Your task to perform on an android device: Is it going to rain tomorrow? Image 0: 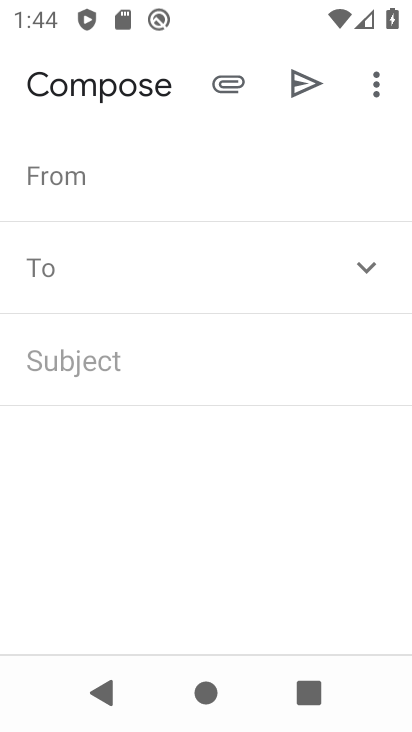
Step 0: click (269, 473)
Your task to perform on an android device: Is it going to rain tomorrow? Image 1: 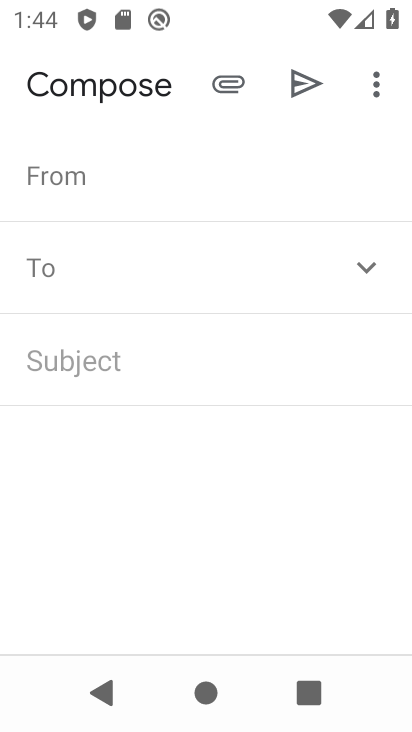
Step 1: press home button
Your task to perform on an android device: Is it going to rain tomorrow? Image 2: 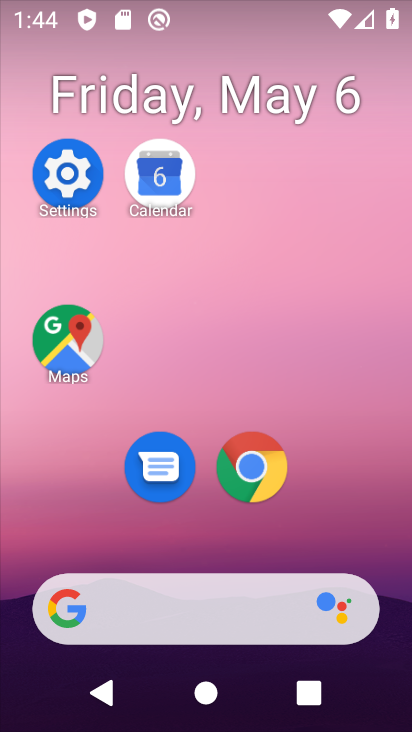
Step 2: drag from (234, 533) to (256, 111)
Your task to perform on an android device: Is it going to rain tomorrow? Image 3: 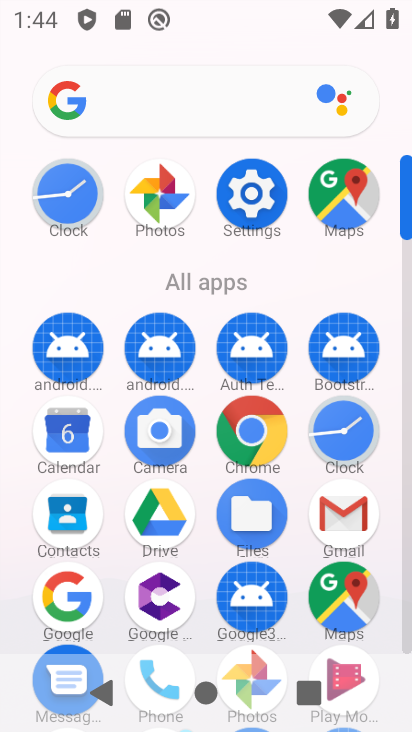
Step 3: drag from (85, 609) to (160, 295)
Your task to perform on an android device: Is it going to rain tomorrow? Image 4: 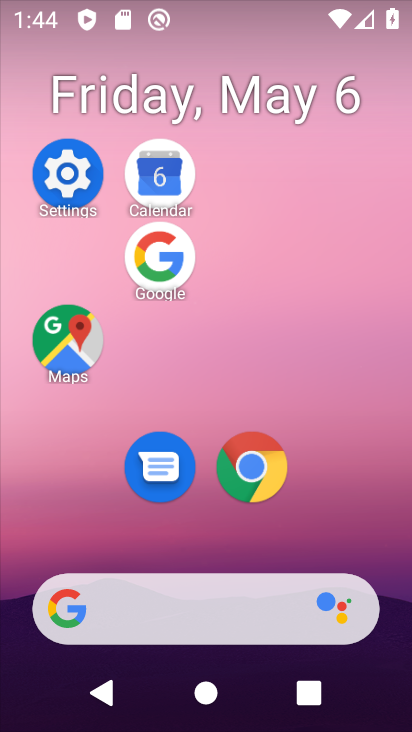
Step 4: click (177, 260)
Your task to perform on an android device: Is it going to rain tomorrow? Image 5: 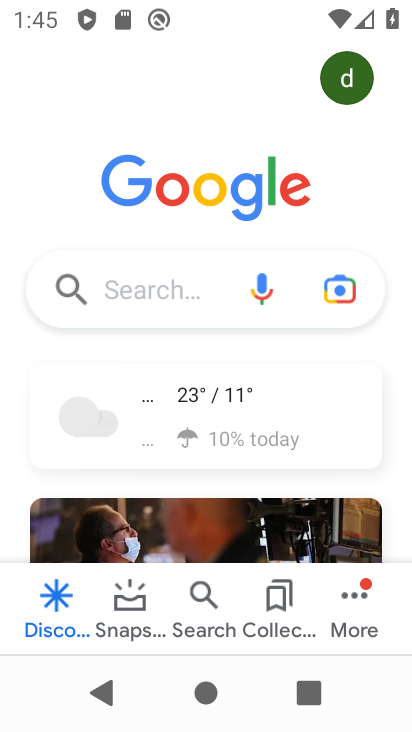
Step 5: click (218, 437)
Your task to perform on an android device: Is it going to rain tomorrow? Image 6: 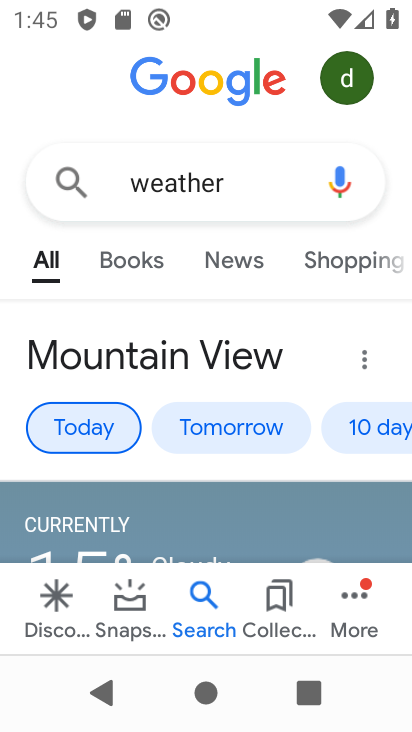
Step 6: click (233, 434)
Your task to perform on an android device: Is it going to rain tomorrow? Image 7: 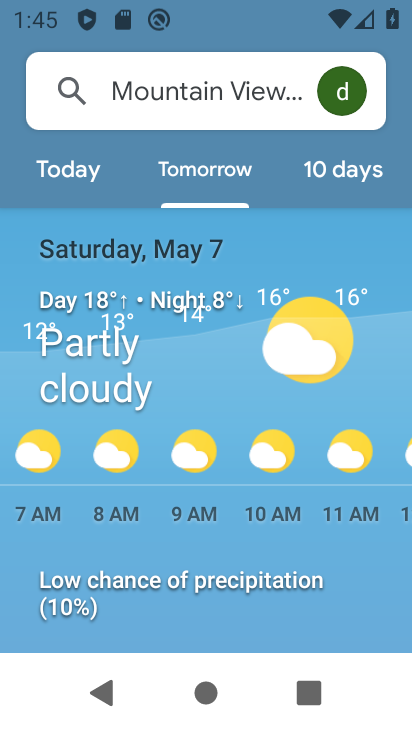
Step 7: task complete